Your task to perform on an android device: Go to Google Image 0: 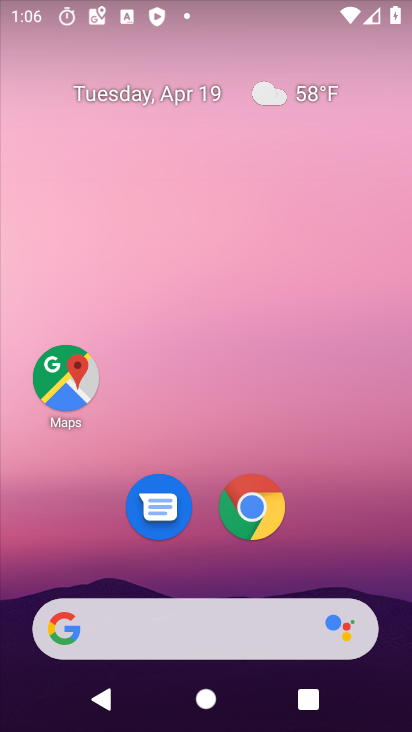
Step 0: drag from (210, 571) to (184, 63)
Your task to perform on an android device: Go to Google Image 1: 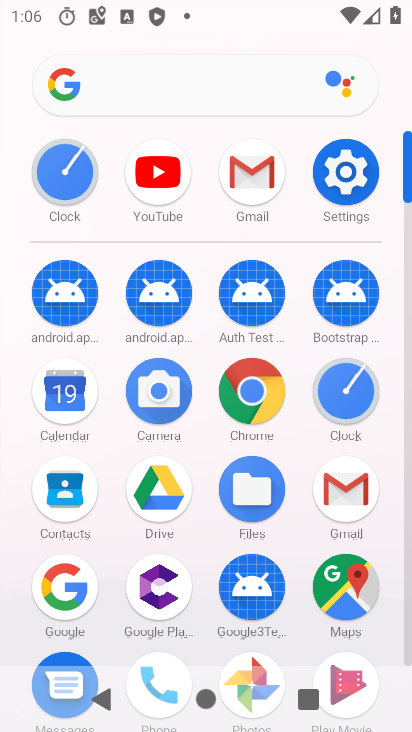
Step 1: click (76, 593)
Your task to perform on an android device: Go to Google Image 2: 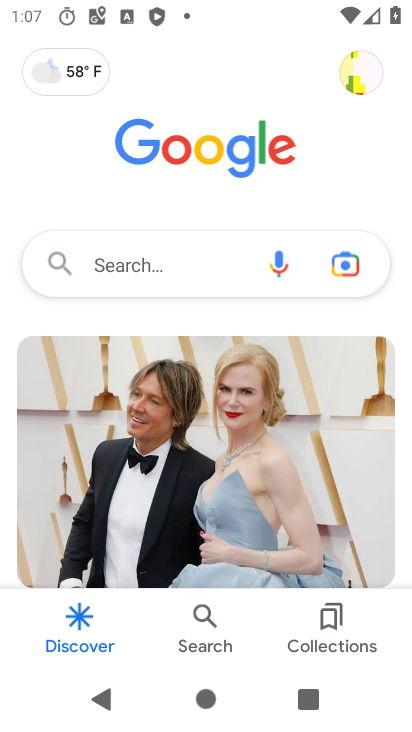
Step 2: task complete